Your task to perform on an android device: allow cookies in the chrome app Image 0: 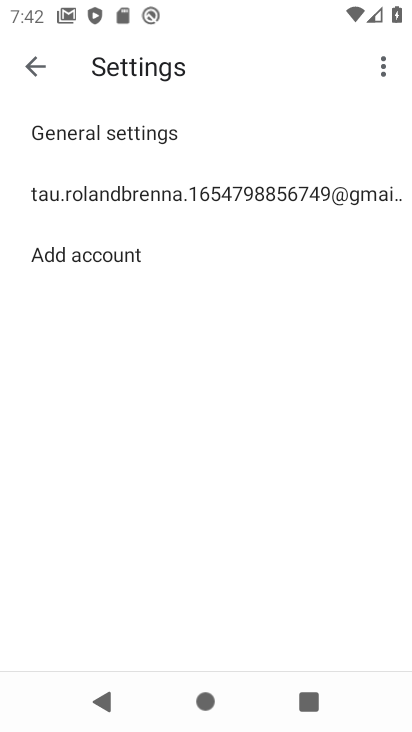
Step 0: press home button
Your task to perform on an android device: allow cookies in the chrome app Image 1: 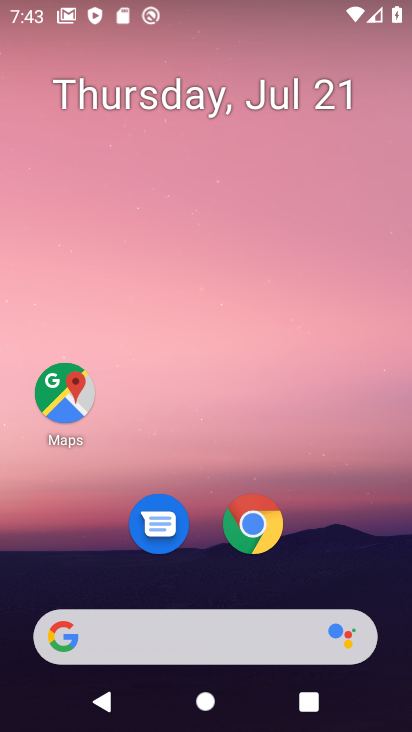
Step 1: click (250, 525)
Your task to perform on an android device: allow cookies in the chrome app Image 2: 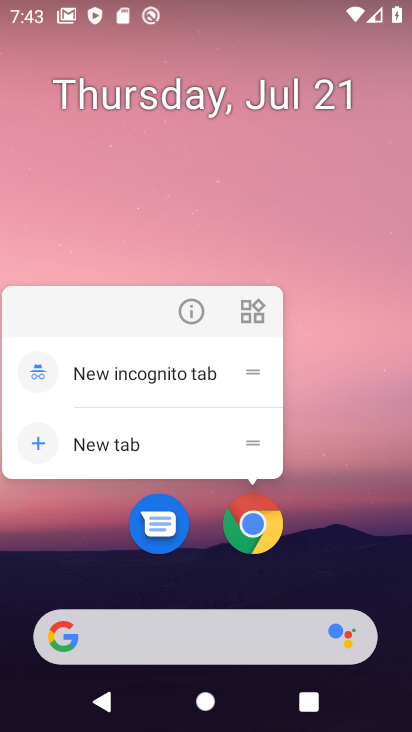
Step 2: click (259, 517)
Your task to perform on an android device: allow cookies in the chrome app Image 3: 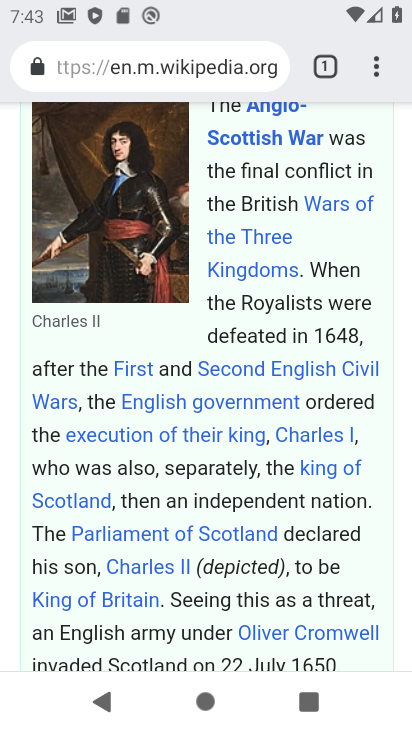
Step 3: drag from (376, 65) to (231, 532)
Your task to perform on an android device: allow cookies in the chrome app Image 4: 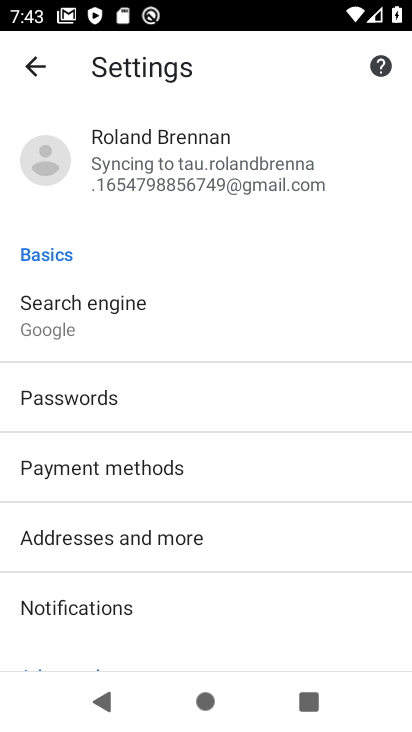
Step 4: drag from (207, 582) to (312, 222)
Your task to perform on an android device: allow cookies in the chrome app Image 5: 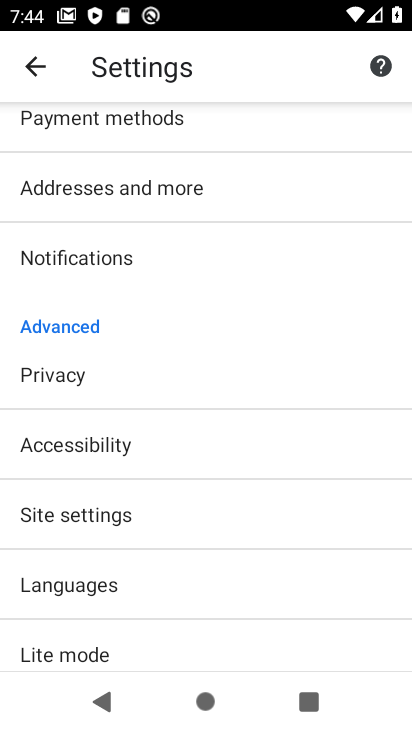
Step 5: click (123, 521)
Your task to perform on an android device: allow cookies in the chrome app Image 6: 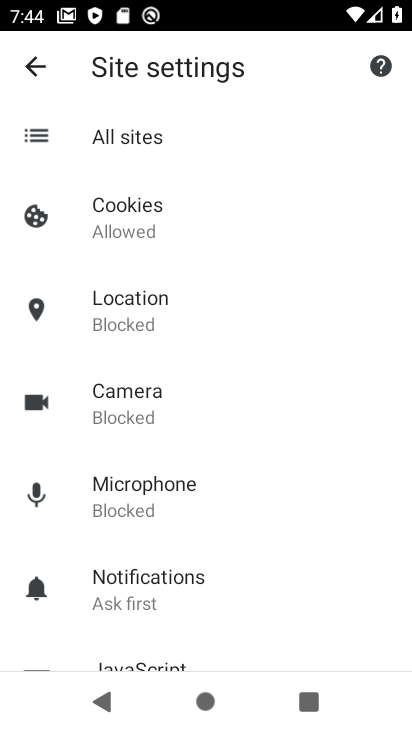
Step 6: click (144, 225)
Your task to perform on an android device: allow cookies in the chrome app Image 7: 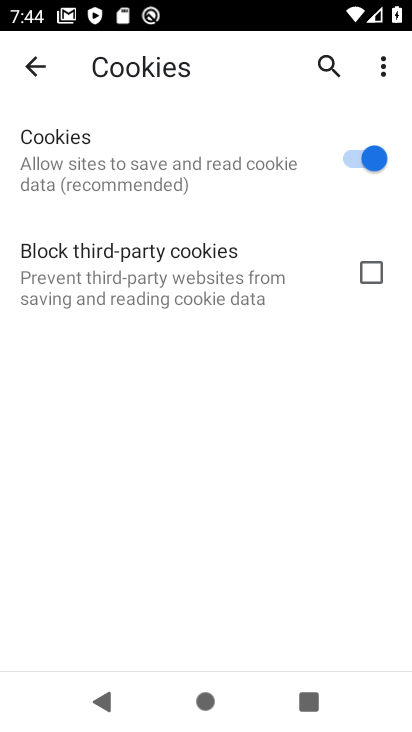
Step 7: task complete